Your task to perform on an android device: What's the weather? Image 0: 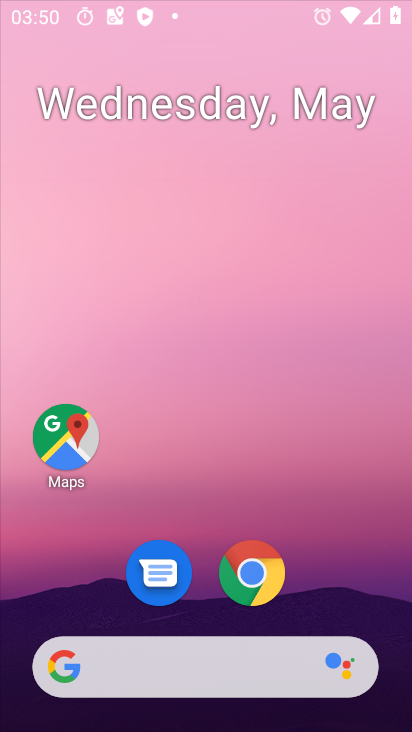
Step 0: click (179, 20)
Your task to perform on an android device: What's the weather? Image 1: 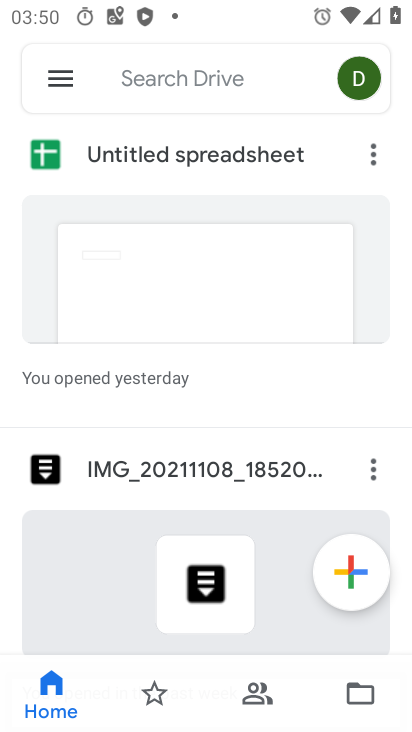
Step 1: press home button
Your task to perform on an android device: What's the weather? Image 2: 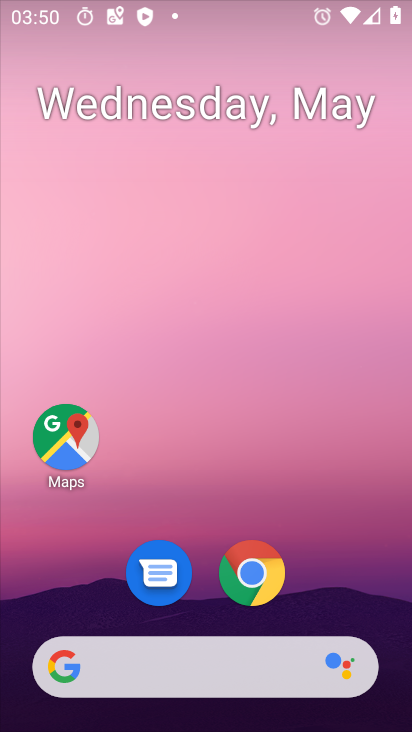
Step 2: drag from (223, 726) to (248, 3)
Your task to perform on an android device: What's the weather? Image 3: 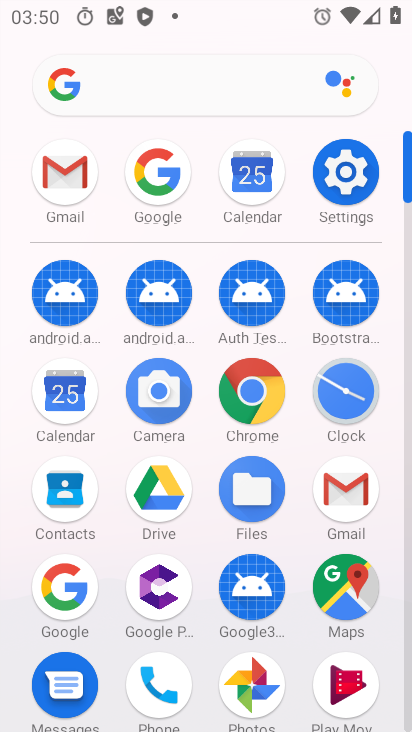
Step 3: click (73, 580)
Your task to perform on an android device: What's the weather? Image 4: 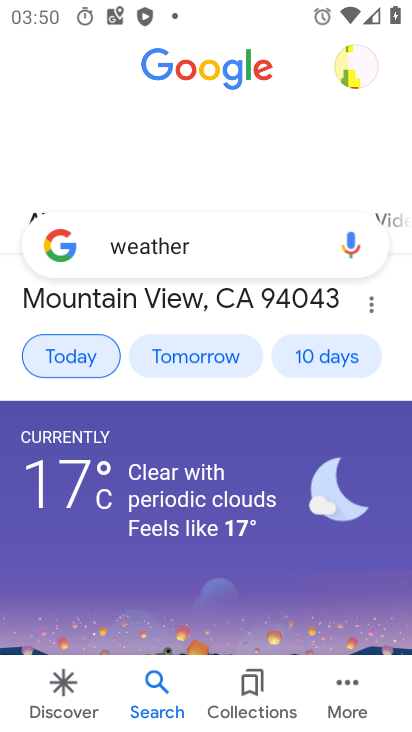
Step 4: click (69, 361)
Your task to perform on an android device: What's the weather? Image 5: 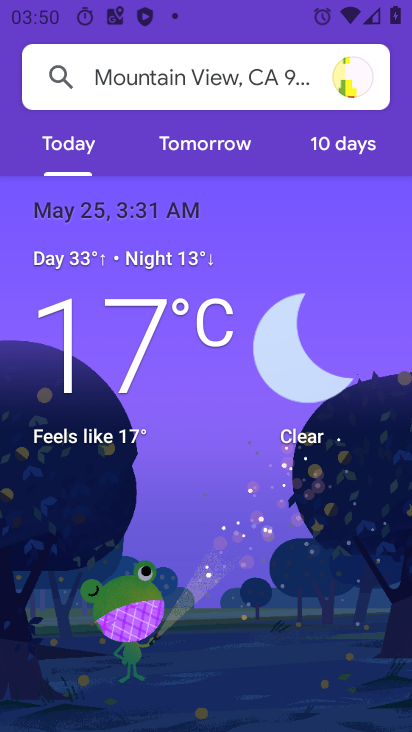
Step 5: task complete